Your task to perform on an android device: Go to privacy settings Image 0: 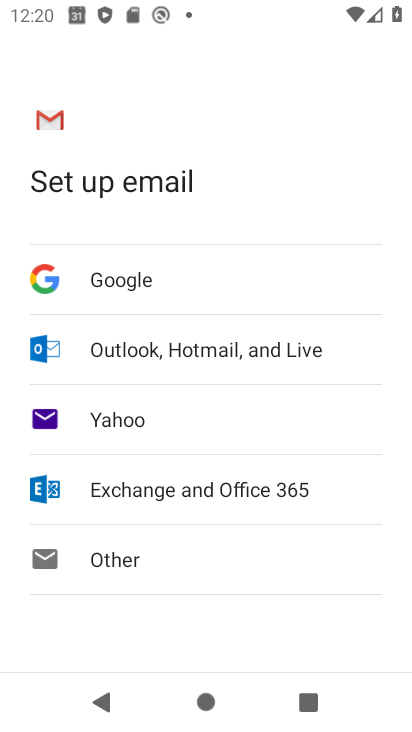
Step 0: drag from (196, 531) to (178, 279)
Your task to perform on an android device: Go to privacy settings Image 1: 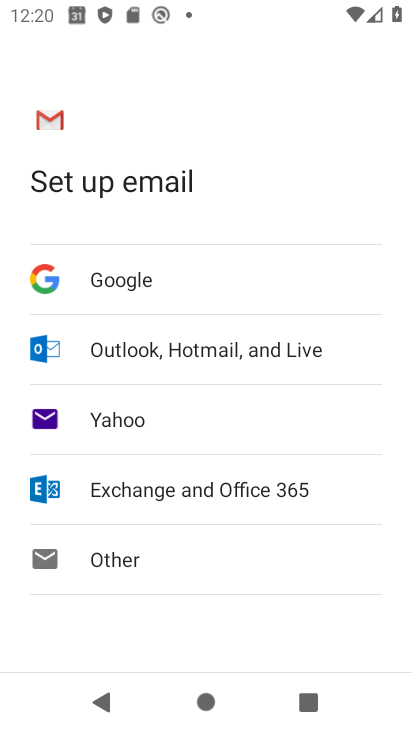
Step 1: press back button
Your task to perform on an android device: Go to privacy settings Image 2: 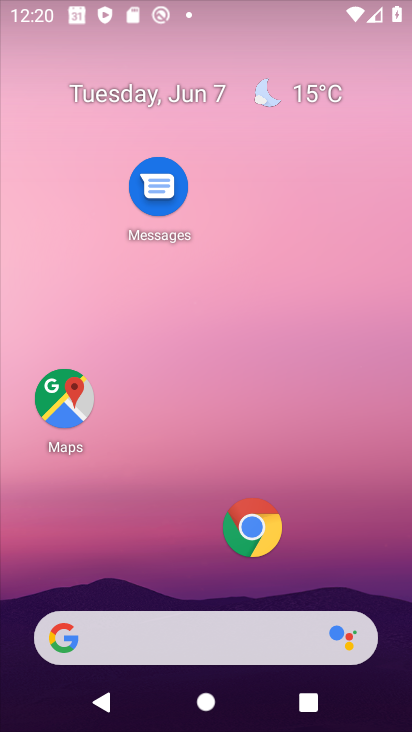
Step 2: drag from (195, 614) to (221, 346)
Your task to perform on an android device: Go to privacy settings Image 3: 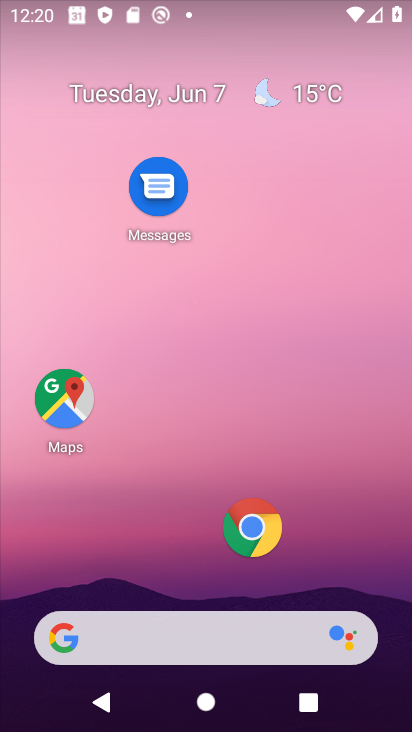
Step 3: drag from (175, 603) to (251, 141)
Your task to perform on an android device: Go to privacy settings Image 4: 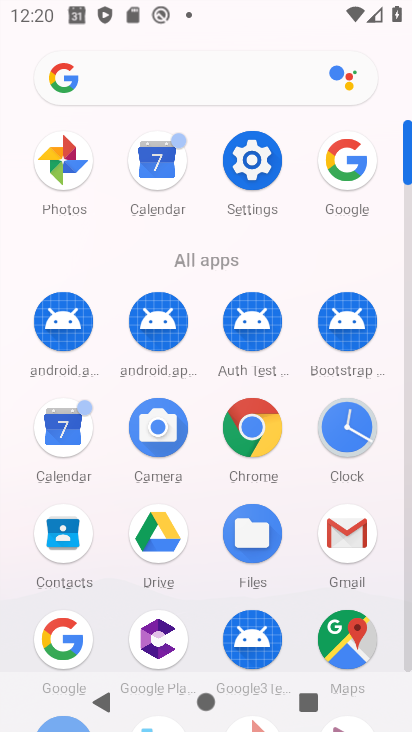
Step 4: click (245, 171)
Your task to perform on an android device: Go to privacy settings Image 5: 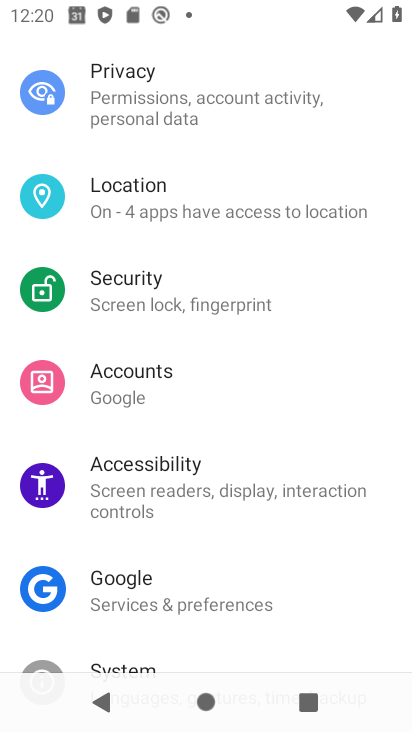
Step 5: drag from (175, 620) to (223, 380)
Your task to perform on an android device: Go to privacy settings Image 6: 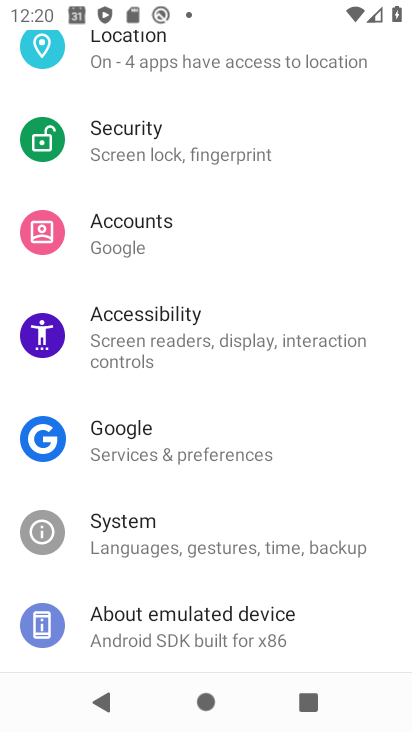
Step 6: drag from (225, 146) to (239, 649)
Your task to perform on an android device: Go to privacy settings Image 7: 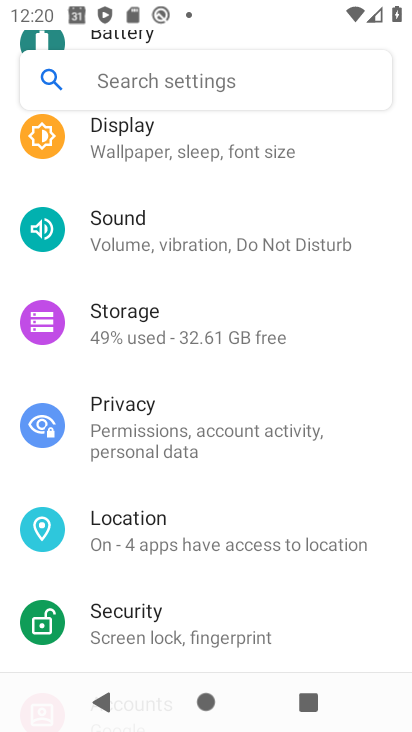
Step 7: drag from (154, 140) to (172, 407)
Your task to perform on an android device: Go to privacy settings Image 8: 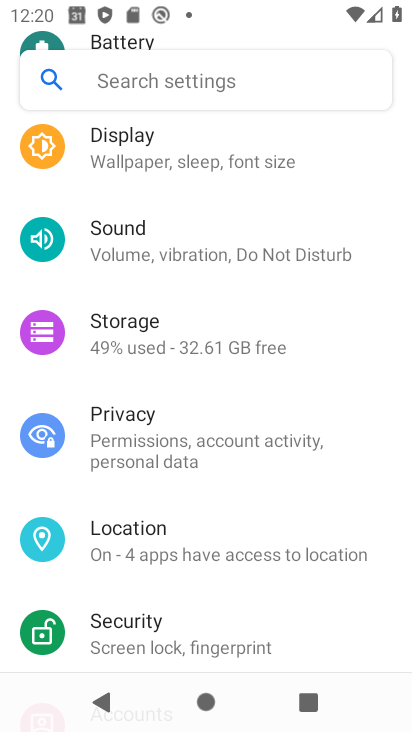
Step 8: click (121, 448)
Your task to perform on an android device: Go to privacy settings Image 9: 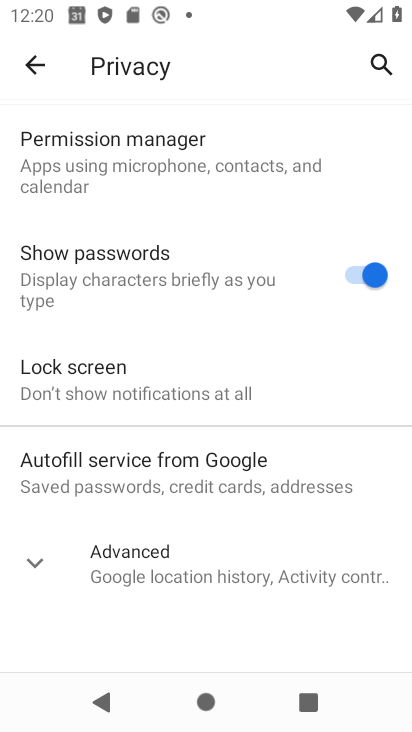
Step 9: click (125, 510)
Your task to perform on an android device: Go to privacy settings Image 10: 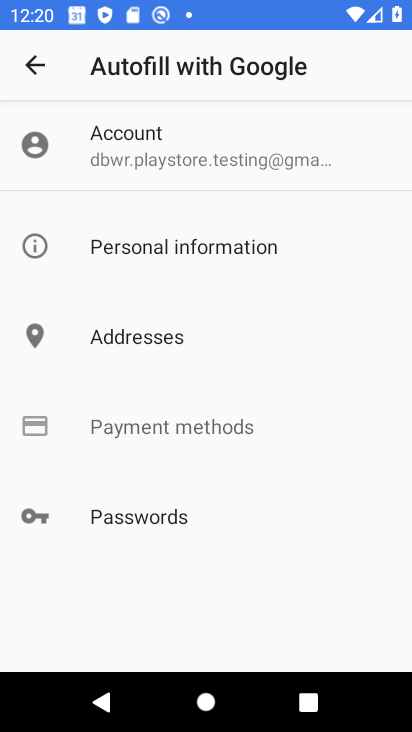
Step 10: task complete